Your task to perform on an android device: change text size in settings app Image 0: 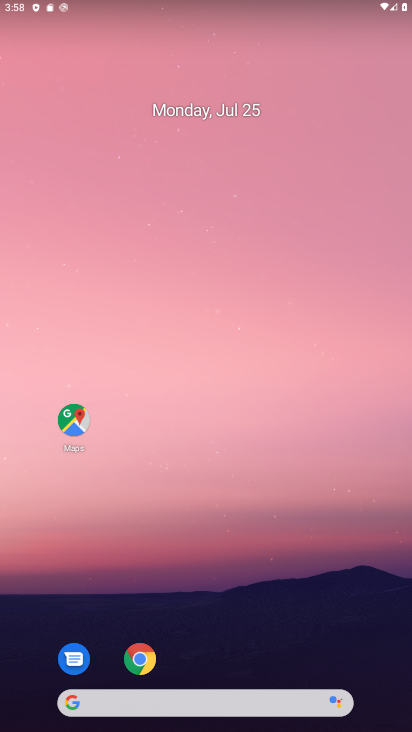
Step 0: drag from (213, 654) to (212, 56)
Your task to perform on an android device: change text size in settings app Image 1: 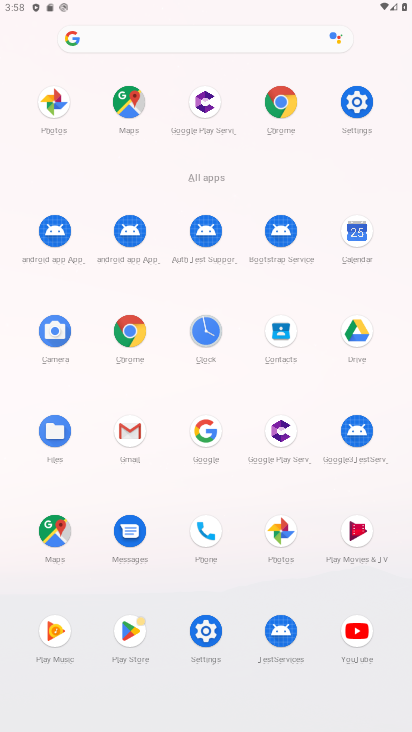
Step 1: click (359, 118)
Your task to perform on an android device: change text size in settings app Image 2: 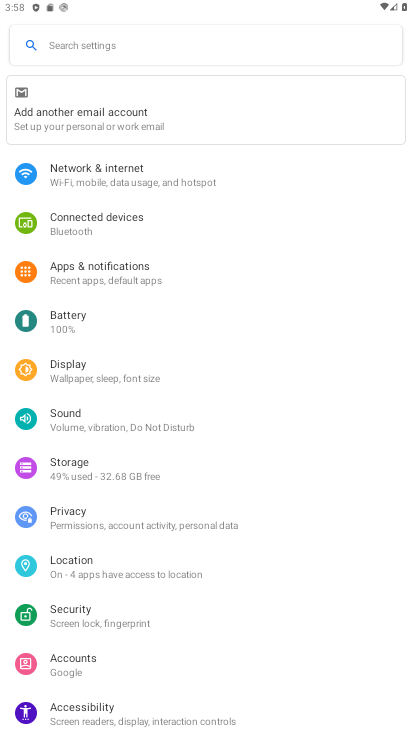
Step 2: click (61, 373)
Your task to perform on an android device: change text size in settings app Image 3: 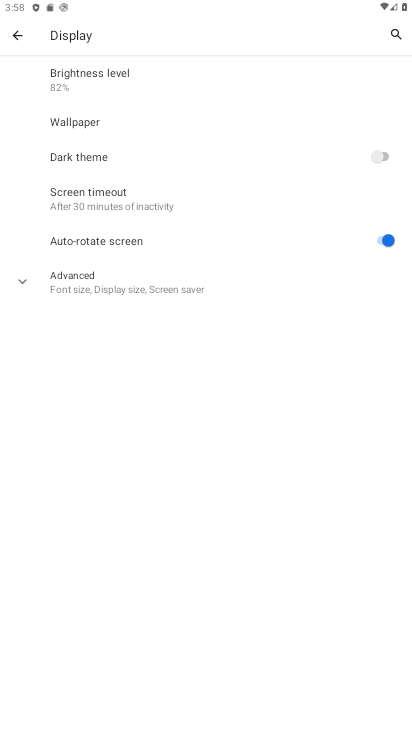
Step 3: click (85, 284)
Your task to perform on an android device: change text size in settings app Image 4: 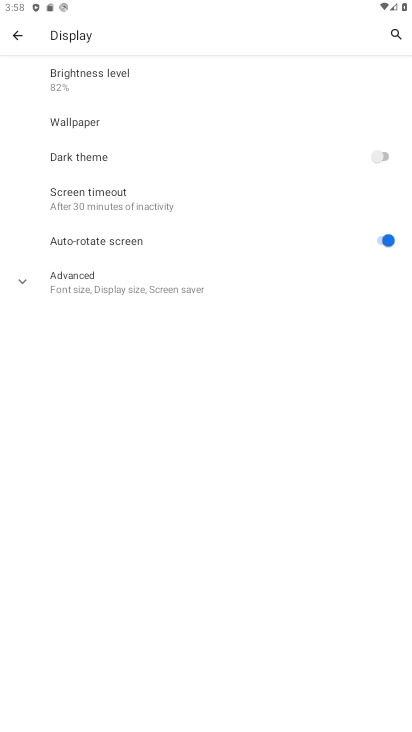
Step 4: click (86, 289)
Your task to perform on an android device: change text size in settings app Image 5: 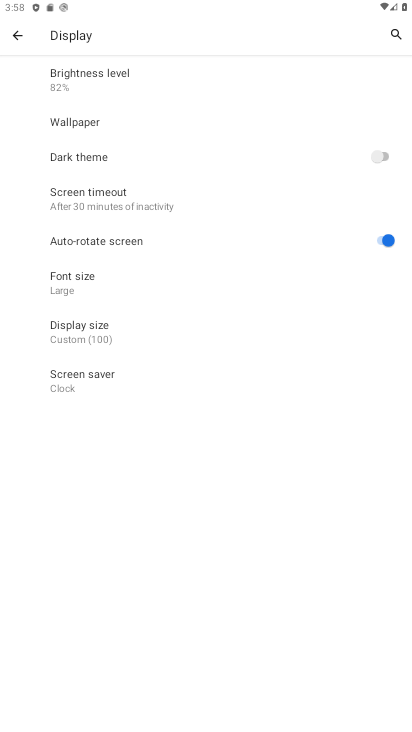
Step 5: click (86, 289)
Your task to perform on an android device: change text size in settings app Image 6: 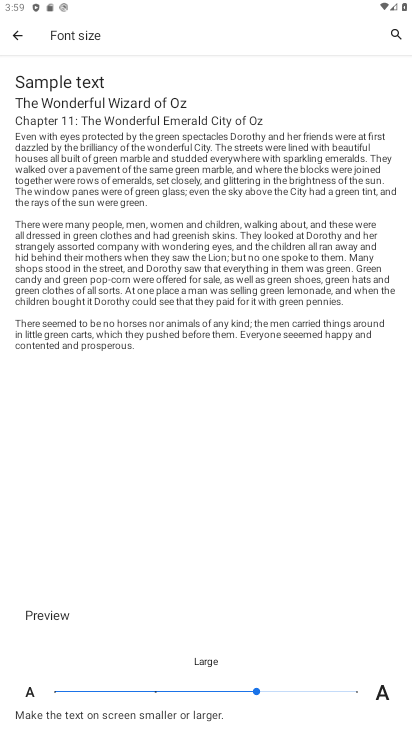
Step 6: click (348, 683)
Your task to perform on an android device: change text size in settings app Image 7: 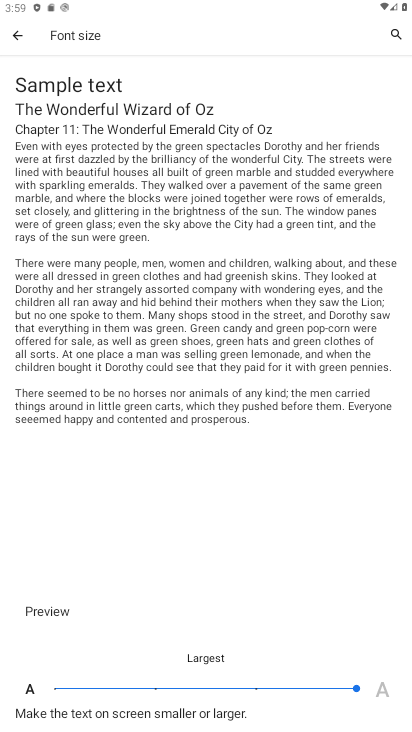
Step 7: task complete